Your task to perform on an android device: Open Reddit.com Image 0: 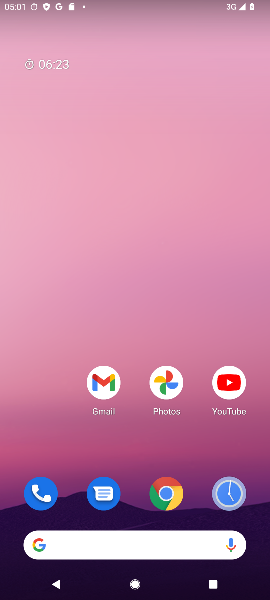
Step 0: press home button
Your task to perform on an android device: Open Reddit.com Image 1: 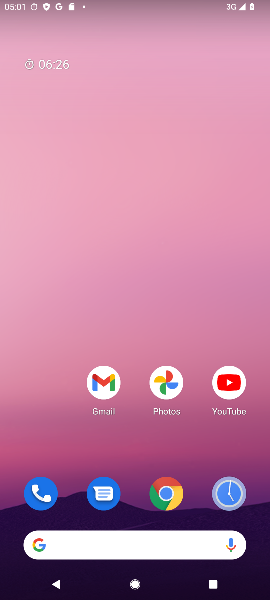
Step 1: drag from (59, 458) to (69, 102)
Your task to perform on an android device: Open Reddit.com Image 2: 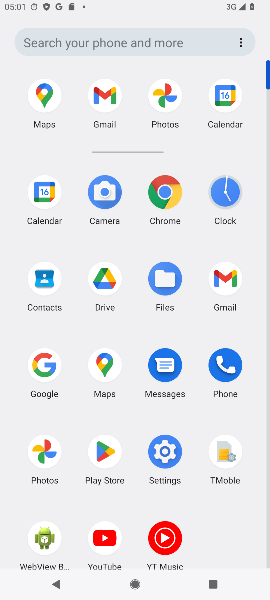
Step 2: click (165, 195)
Your task to perform on an android device: Open Reddit.com Image 3: 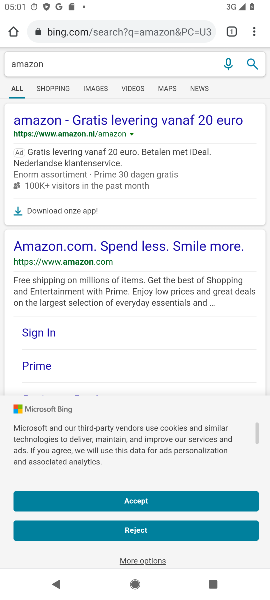
Step 3: click (154, 32)
Your task to perform on an android device: Open Reddit.com Image 4: 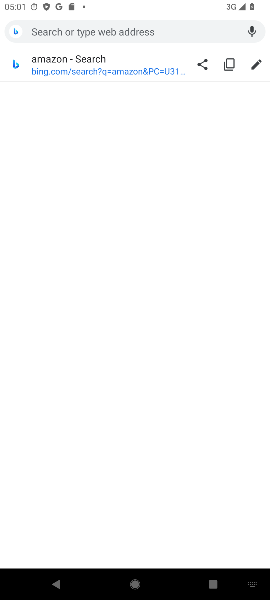
Step 4: type "reddit.com"
Your task to perform on an android device: Open Reddit.com Image 5: 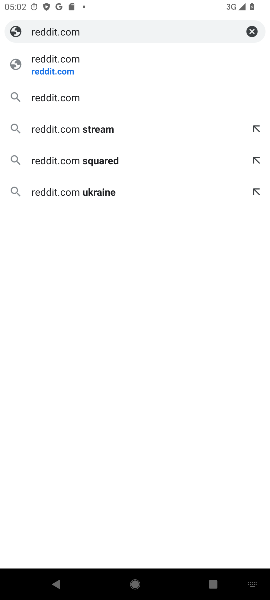
Step 5: click (131, 75)
Your task to perform on an android device: Open Reddit.com Image 6: 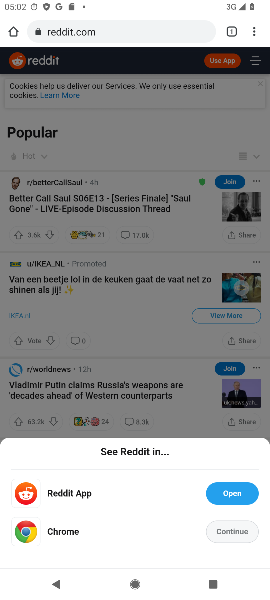
Step 6: task complete